Your task to perform on an android device: Search for vegetarian restaurants on Maps Image 0: 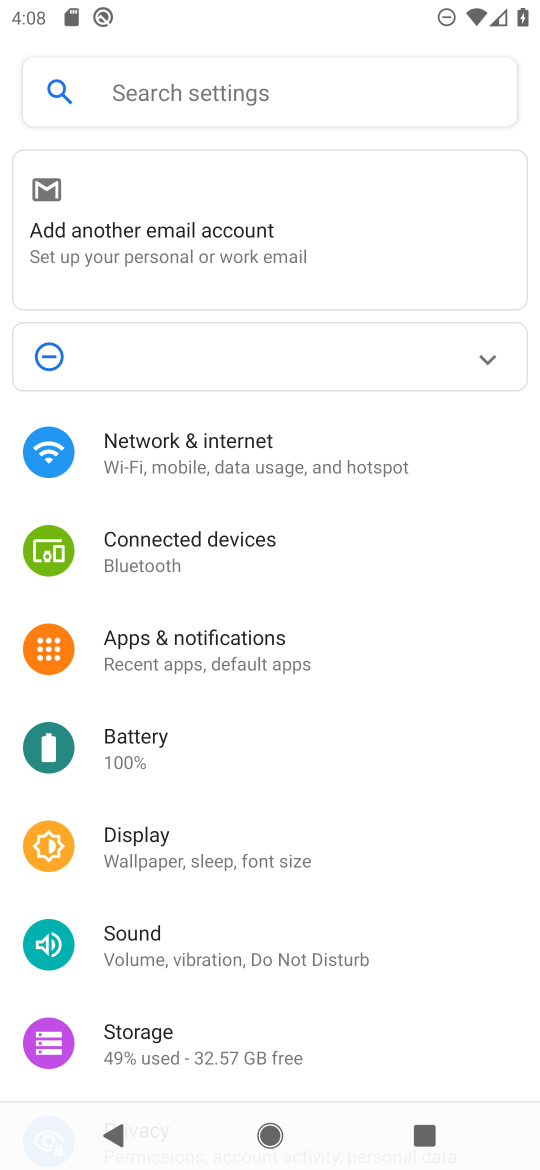
Step 0: press back button
Your task to perform on an android device: Search for vegetarian restaurants on Maps Image 1: 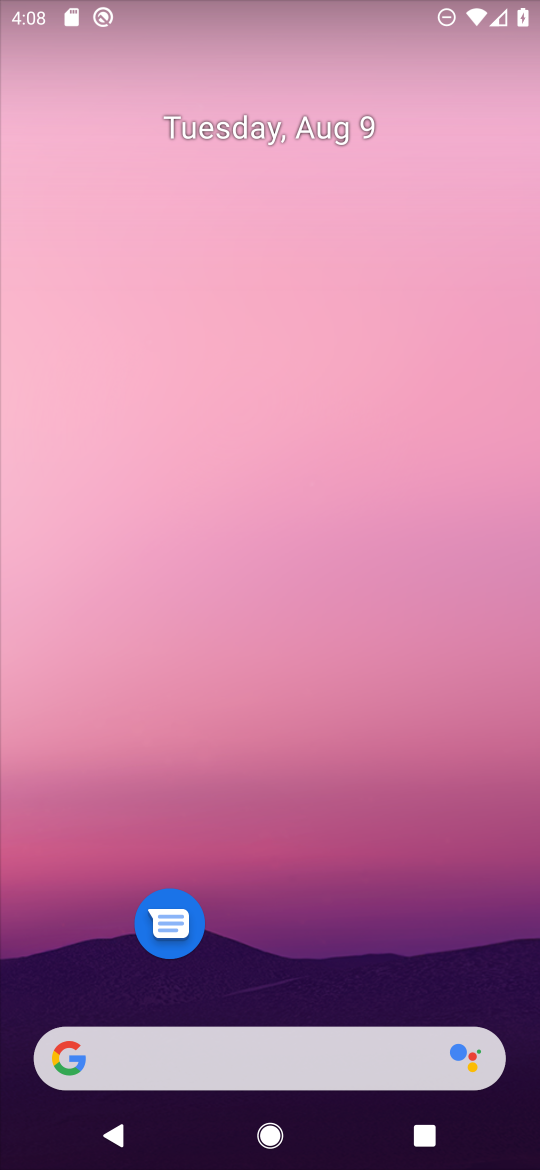
Step 1: drag from (309, 850) to (444, 2)
Your task to perform on an android device: Search for vegetarian restaurants on Maps Image 2: 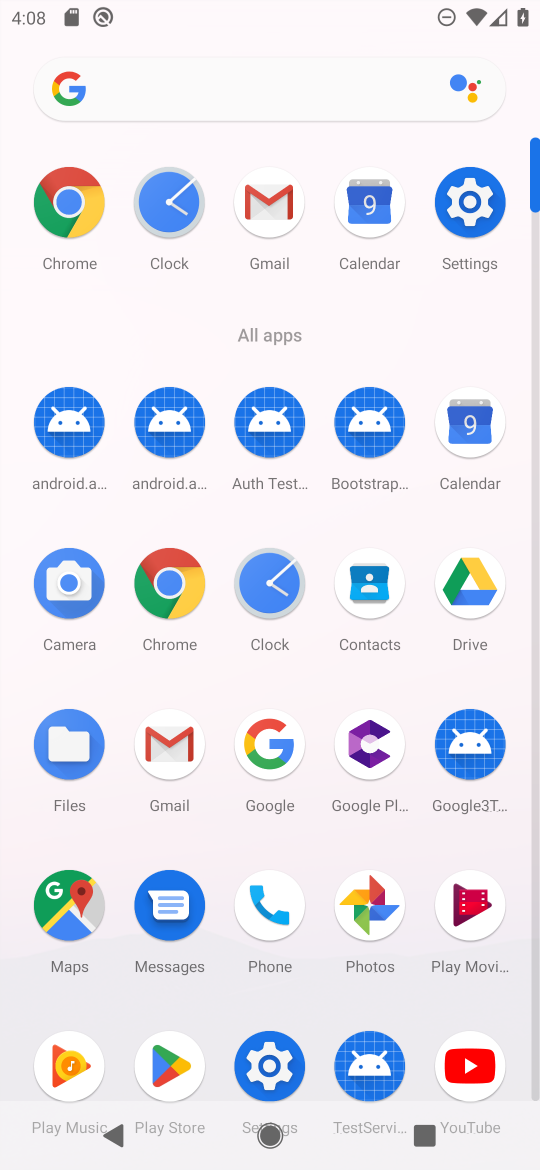
Step 2: click (65, 901)
Your task to perform on an android device: Search for vegetarian restaurants on Maps Image 3: 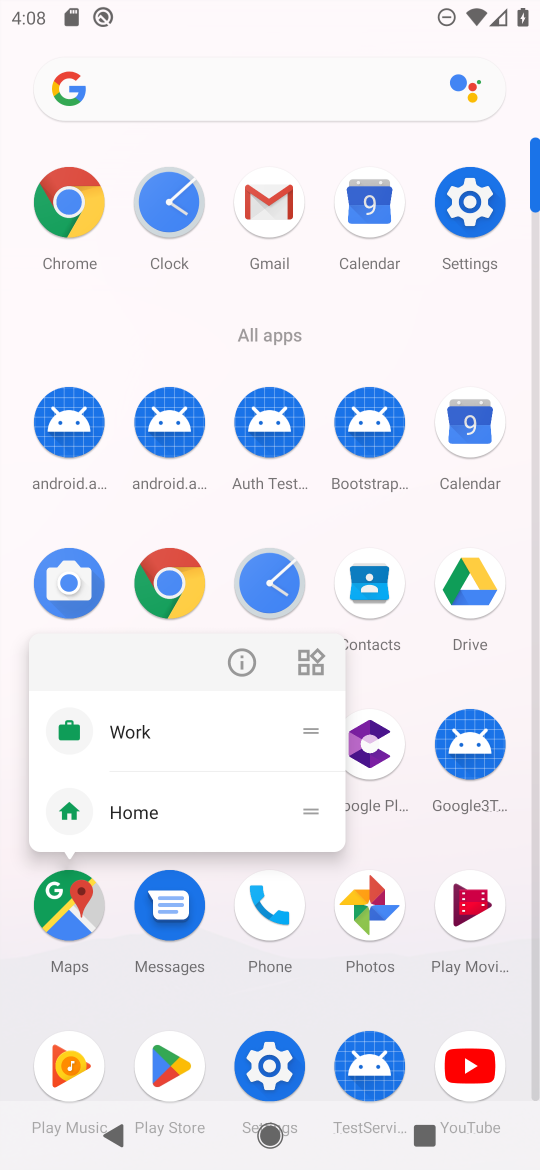
Step 3: click (62, 926)
Your task to perform on an android device: Search for vegetarian restaurants on Maps Image 4: 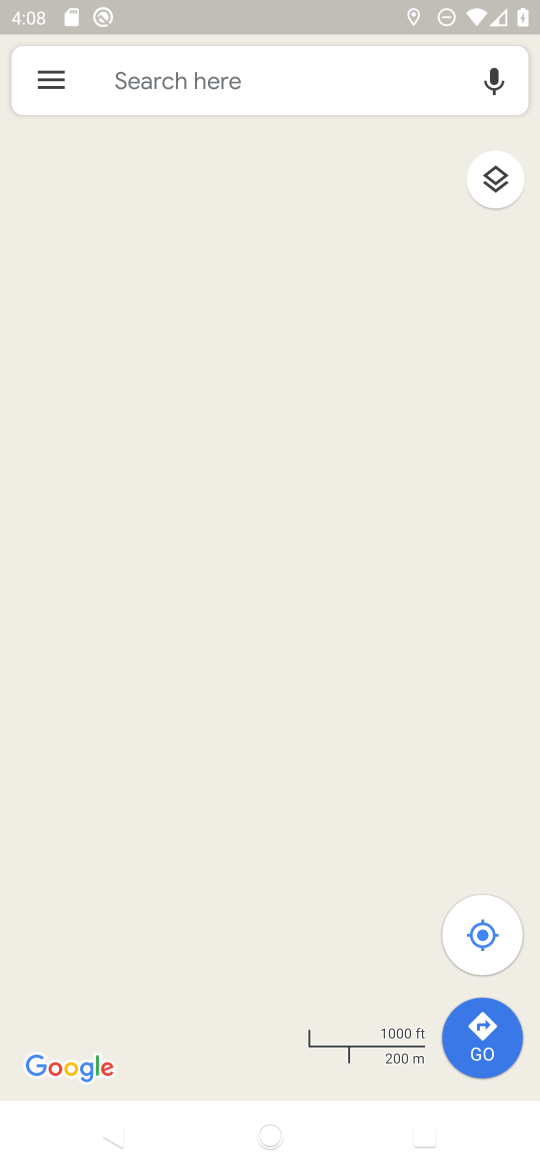
Step 4: click (227, 81)
Your task to perform on an android device: Search for vegetarian restaurants on Maps Image 5: 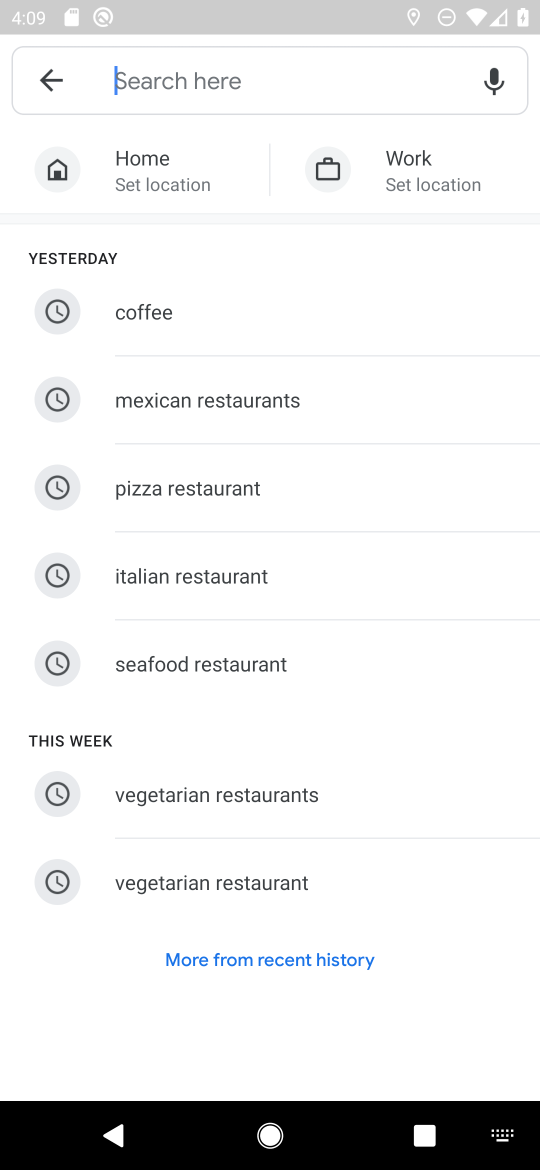
Step 5: click (185, 793)
Your task to perform on an android device: Search for vegetarian restaurants on Maps Image 6: 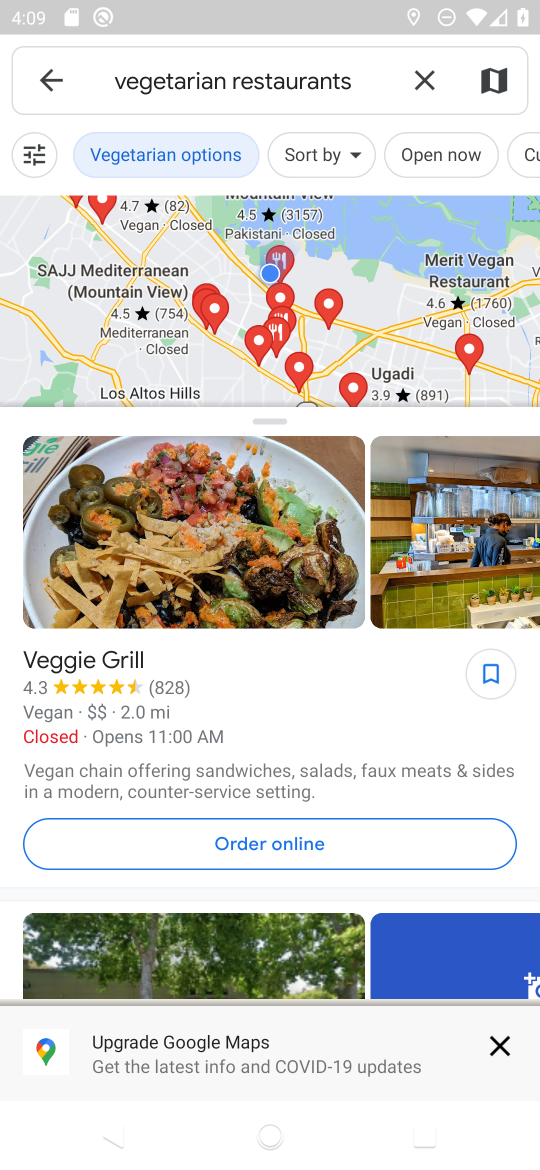
Step 6: task complete